Your task to perform on an android device: toggle pop-ups in chrome Image 0: 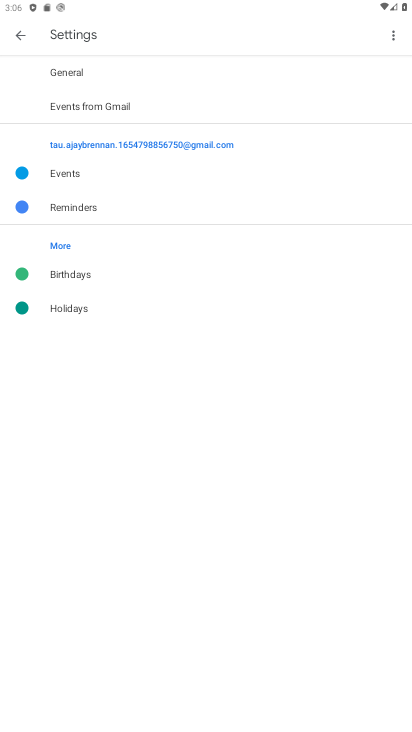
Step 0: press home button
Your task to perform on an android device: toggle pop-ups in chrome Image 1: 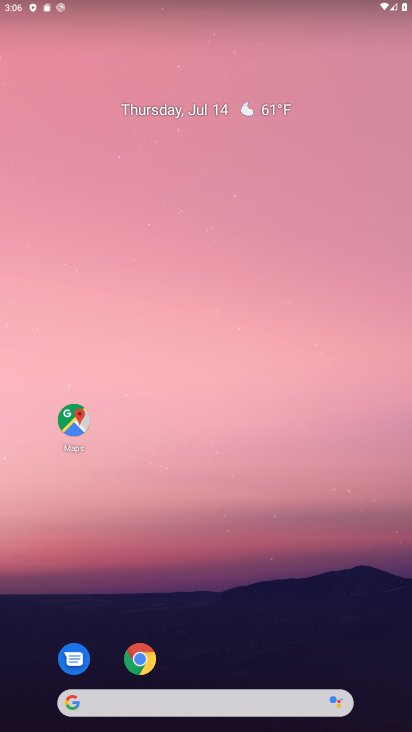
Step 1: click (142, 661)
Your task to perform on an android device: toggle pop-ups in chrome Image 2: 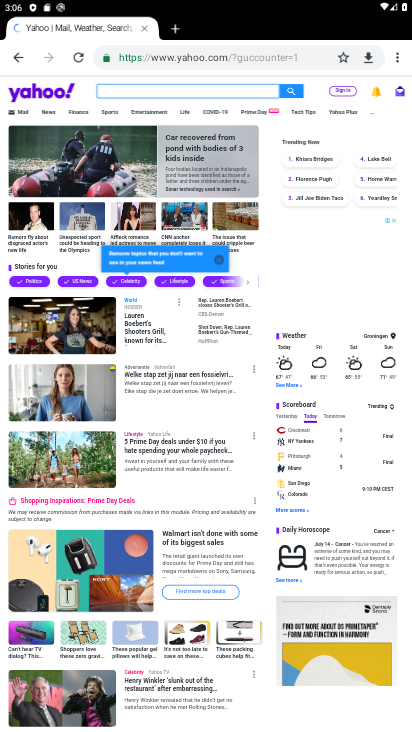
Step 2: click (398, 55)
Your task to perform on an android device: toggle pop-ups in chrome Image 3: 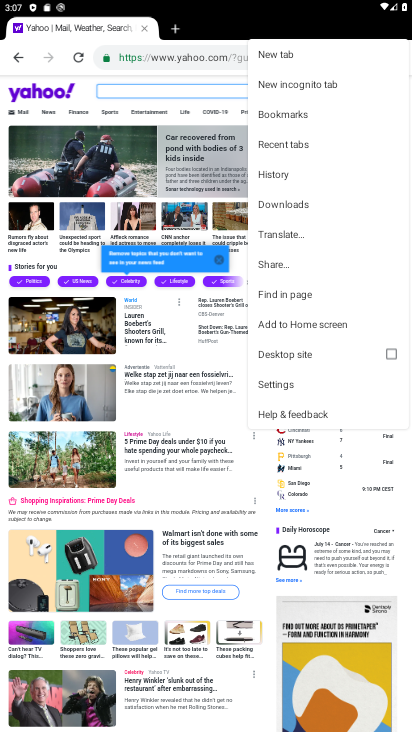
Step 3: click (283, 382)
Your task to perform on an android device: toggle pop-ups in chrome Image 4: 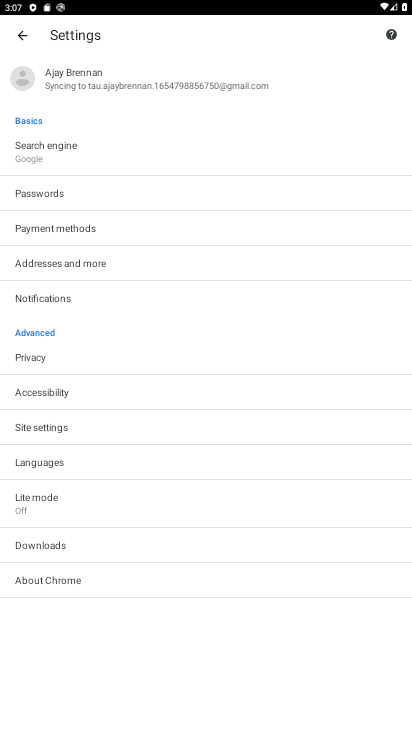
Step 4: click (48, 428)
Your task to perform on an android device: toggle pop-ups in chrome Image 5: 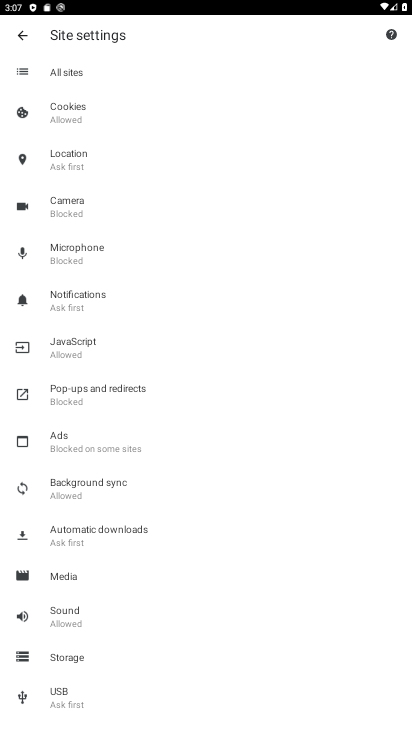
Step 5: click (68, 394)
Your task to perform on an android device: toggle pop-ups in chrome Image 6: 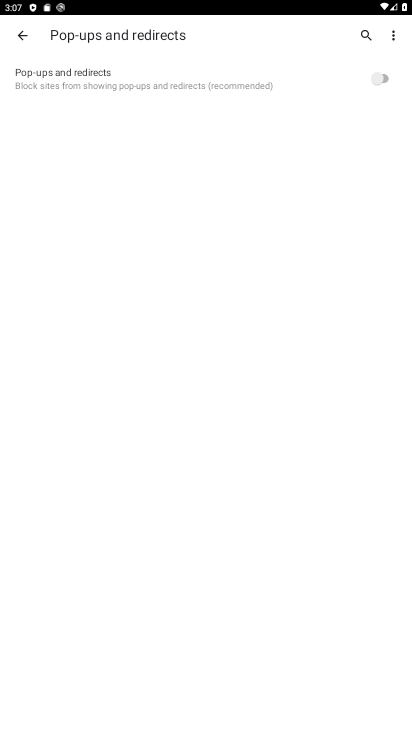
Step 6: click (383, 77)
Your task to perform on an android device: toggle pop-ups in chrome Image 7: 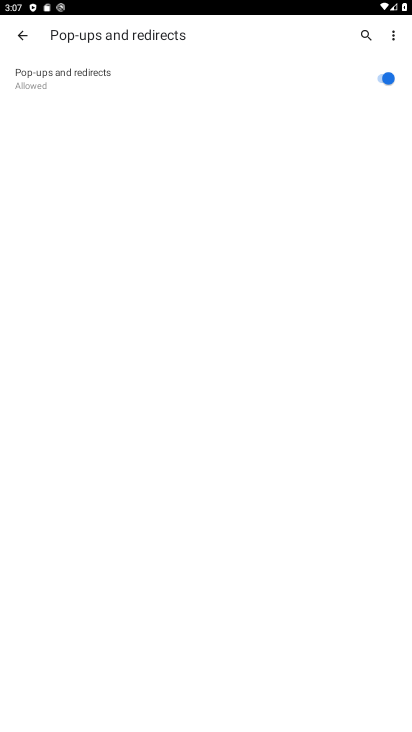
Step 7: task complete